Your task to perform on an android device: Open wifi settings Image 0: 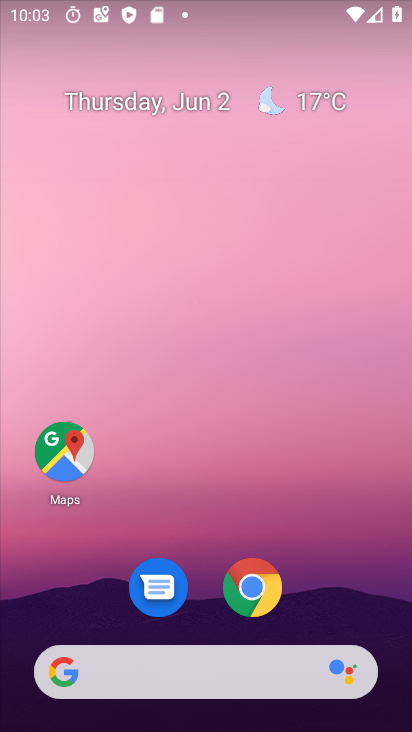
Step 0: press home button
Your task to perform on an android device: Open wifi settings Image 1: 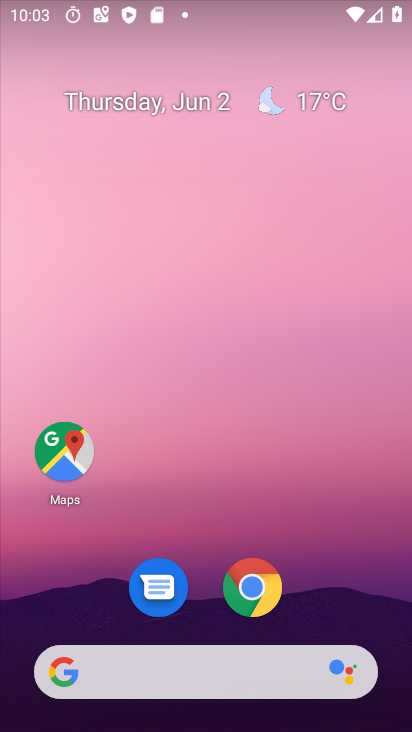
Step 1: drag from (205, 625) to (229, 92)
Your task to perform on an android device: Open wifi settings Image 2: 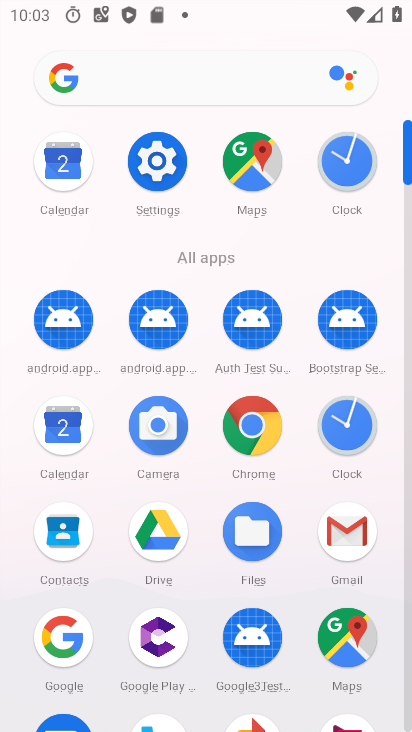
Step 2: click (152, 156)
Your task to perform on an android device: Open wifi settings Image 3: 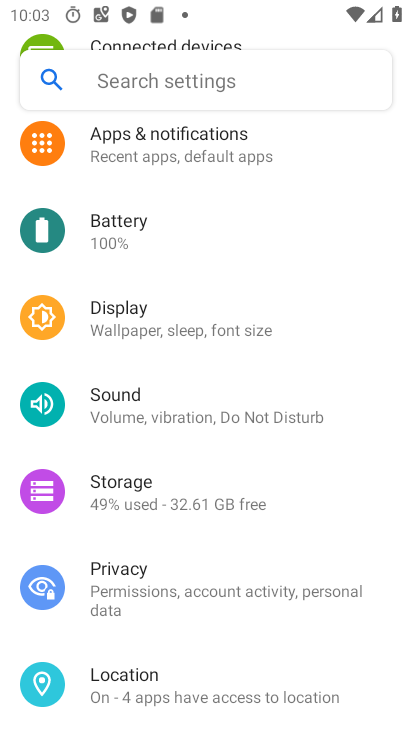
Step 3: drag from (220, 161) to (260, 705)
Your task to perform on an android device: Open wifi settings Image 4: 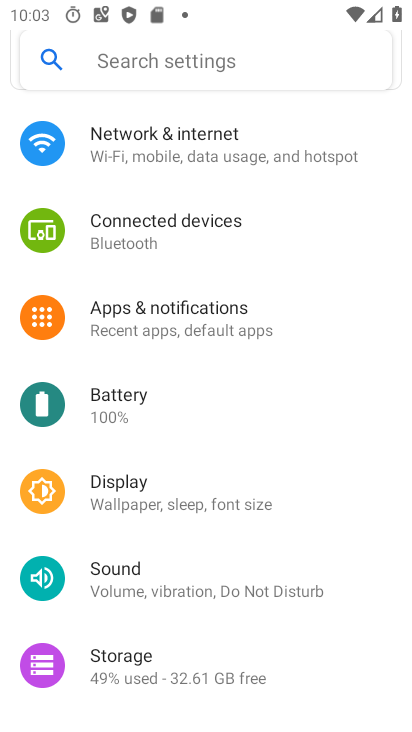
Step 4: click (182, 139)
Your task to perform on an android device: Open wifi settings Image 5: 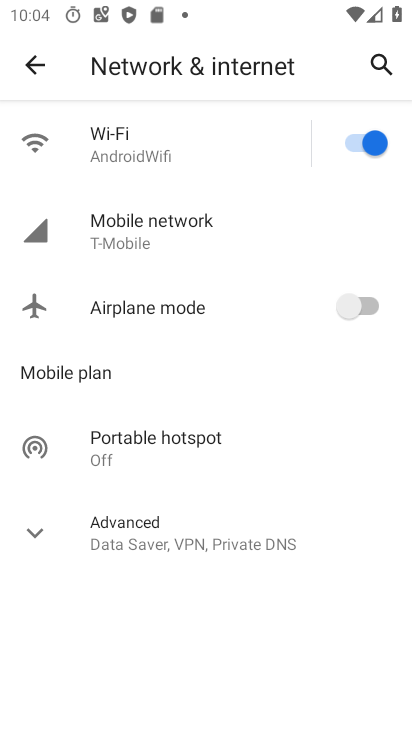
Step 5: click (168, 136)
Your task to perform on an android device: Open wifi settings Image 6: 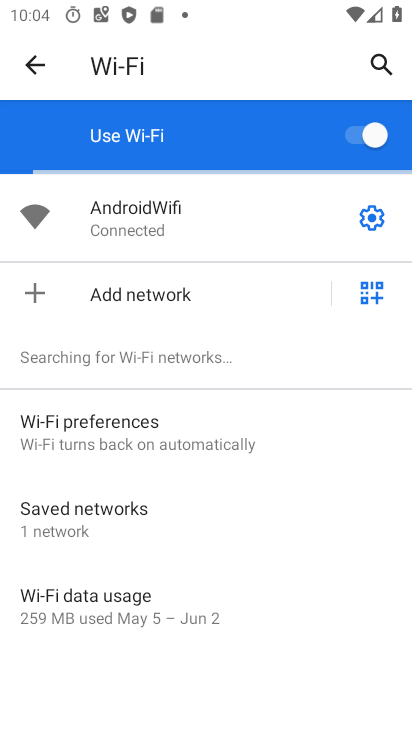
Step 6: task complete